Your task to perform on an android device: turn on priority inbox in the gmail app Image 0: 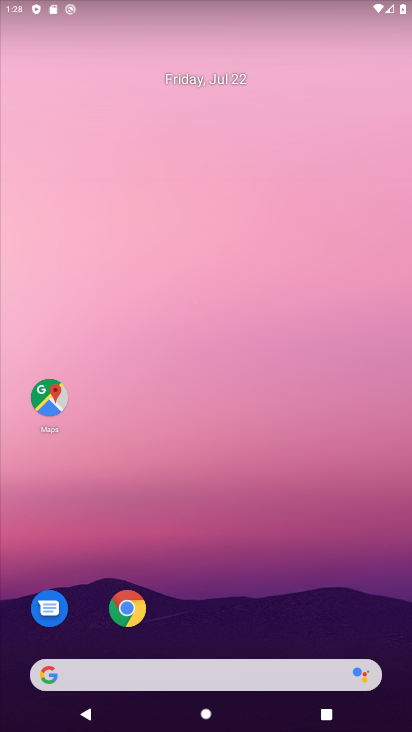
Step 0: drag from (398, 723) to (340, 119)
Your task to perform on an android device: turn on priority inbox in the gmail app Image 1: 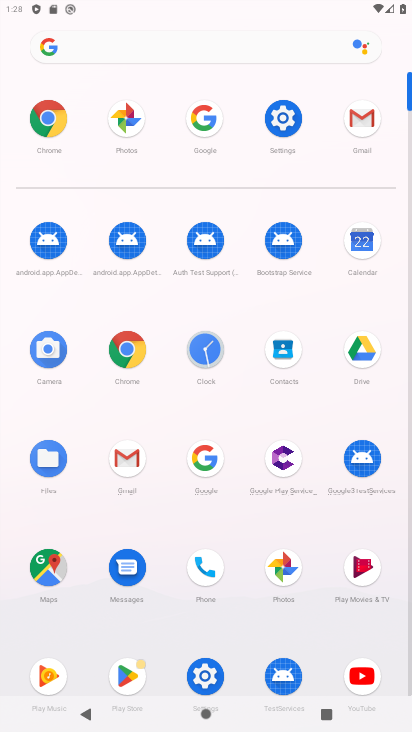
Step 1: click (144, 474)
Your task to perform on an android device: turn on priority inbox in the gmail app Image 2: 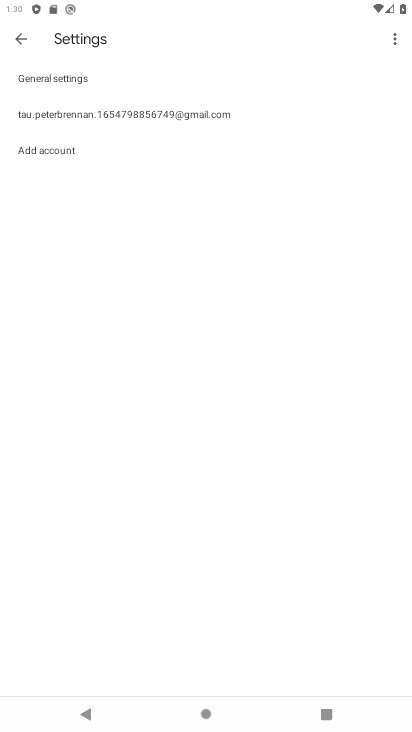
Step 2: click (89, 108)
Your task to perform on an android device: turn on priority inbox in the gmail app Image 3: 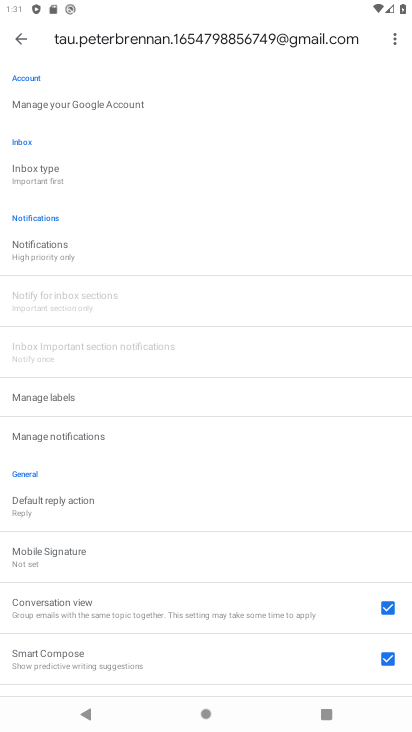
Step 3: task complete